Your task to perform on an android device: set an alarm Image 0: 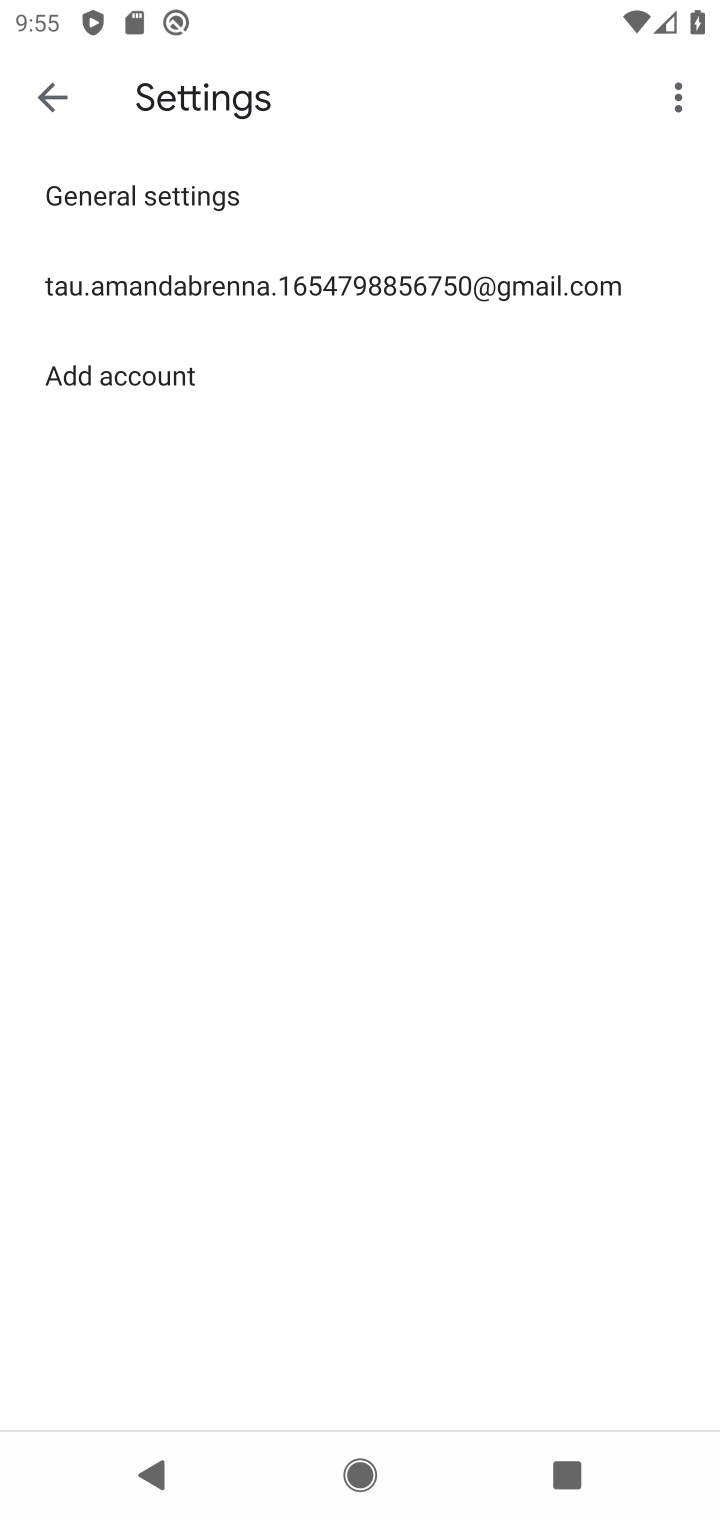
Step 0: press home button
Your task to perform on an android device: set an alarm Image 1: 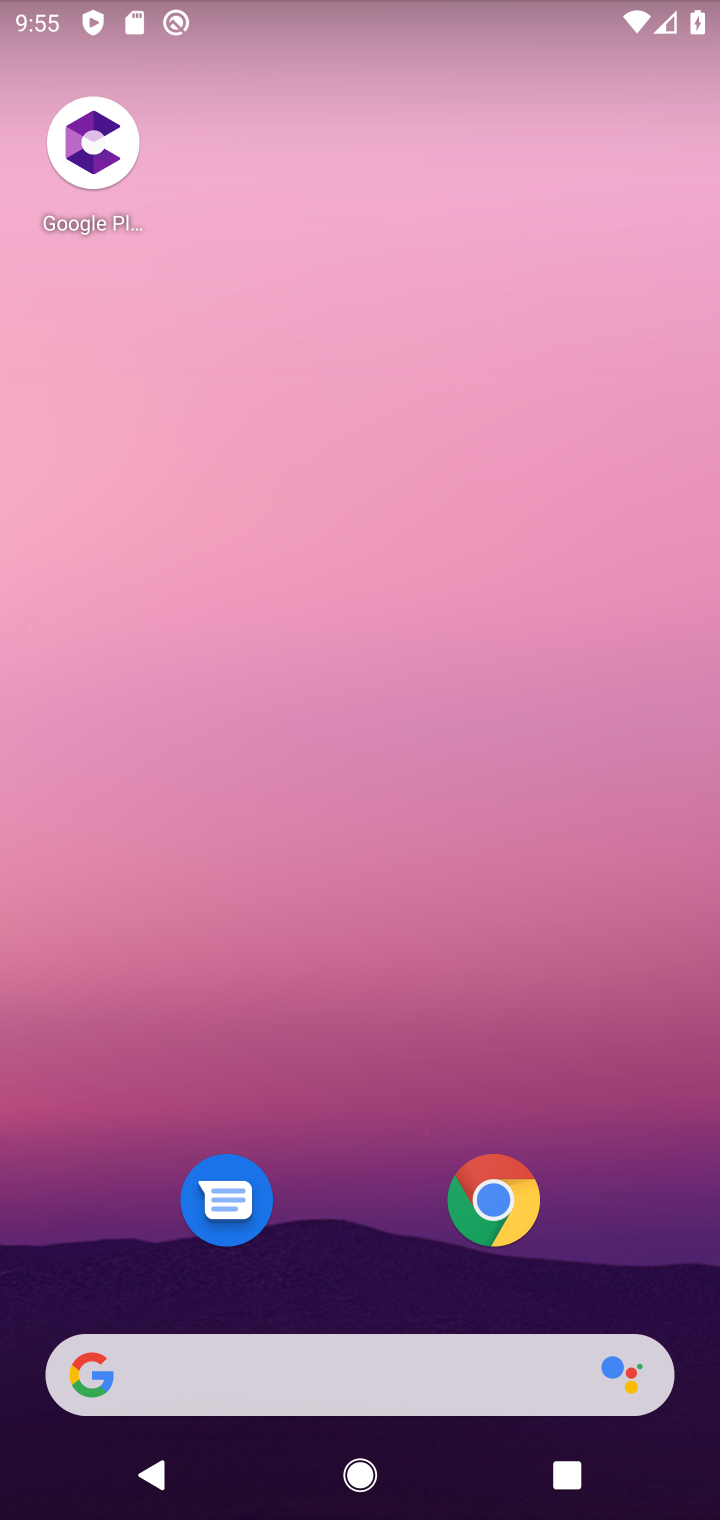
Step 1: drag from (186, 1321) to (495, 341)
Your task to perform on an android device: set an alarm Image 2: 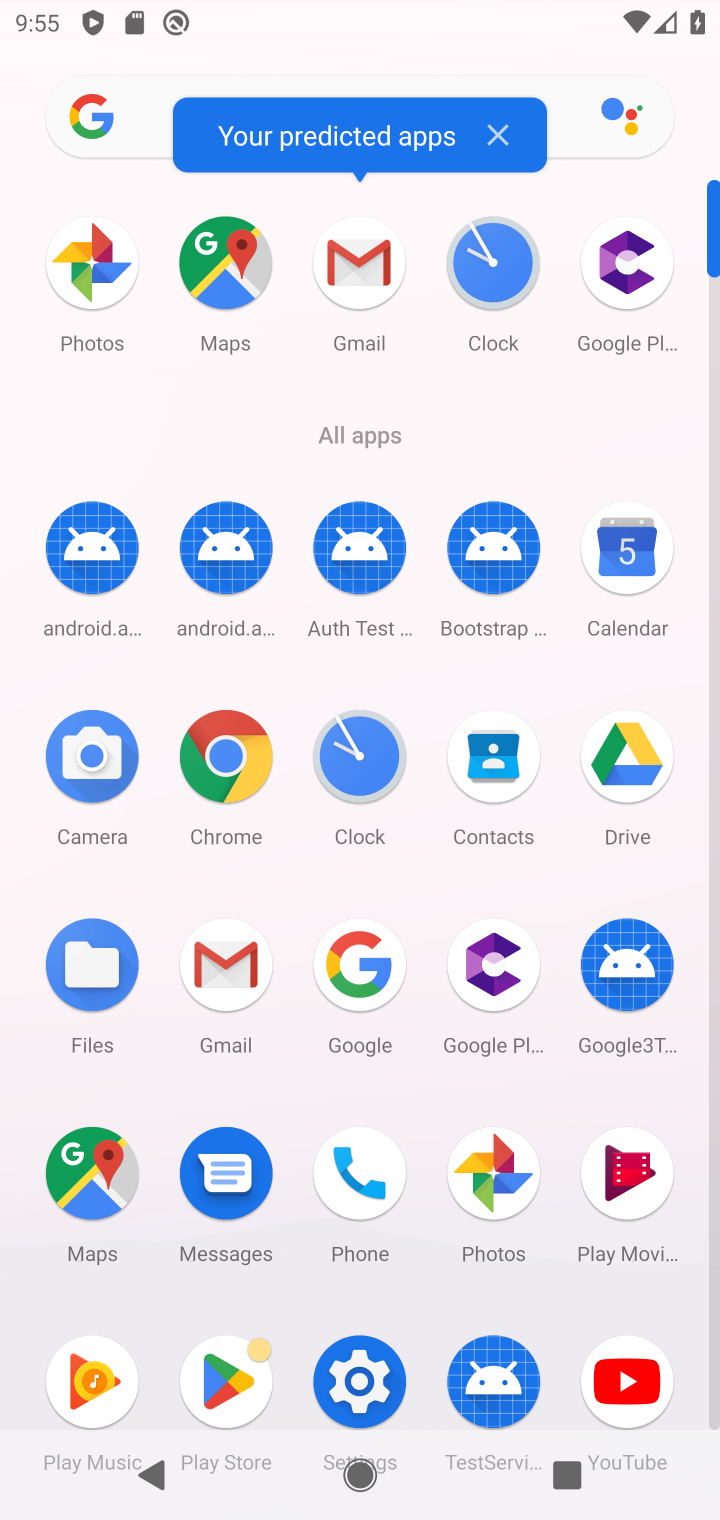
Step 2: click (309, 726)
Your task to perform on an android device: set an alarm Image 3: 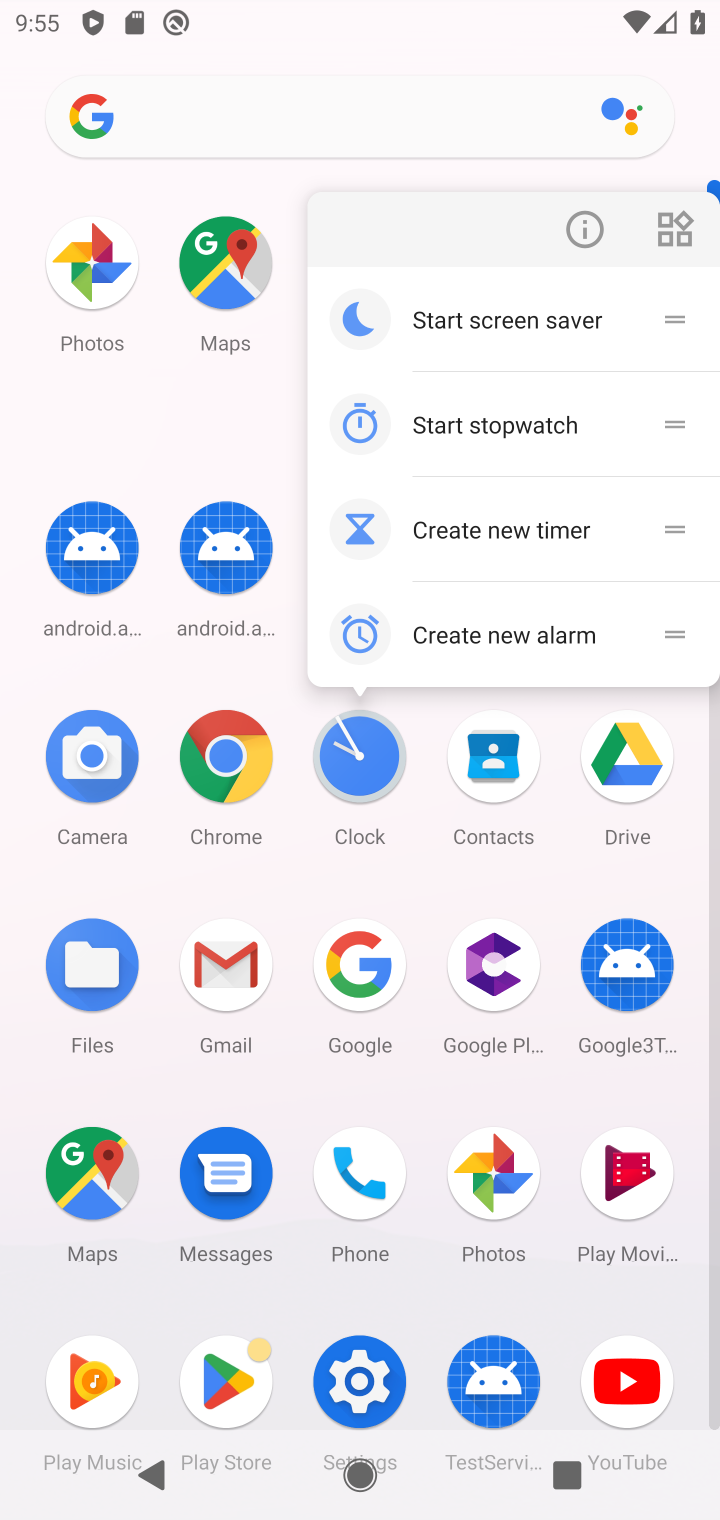
Step 3: click (352, 747)
Your task to perform on an android device: set an alarm Image 4: 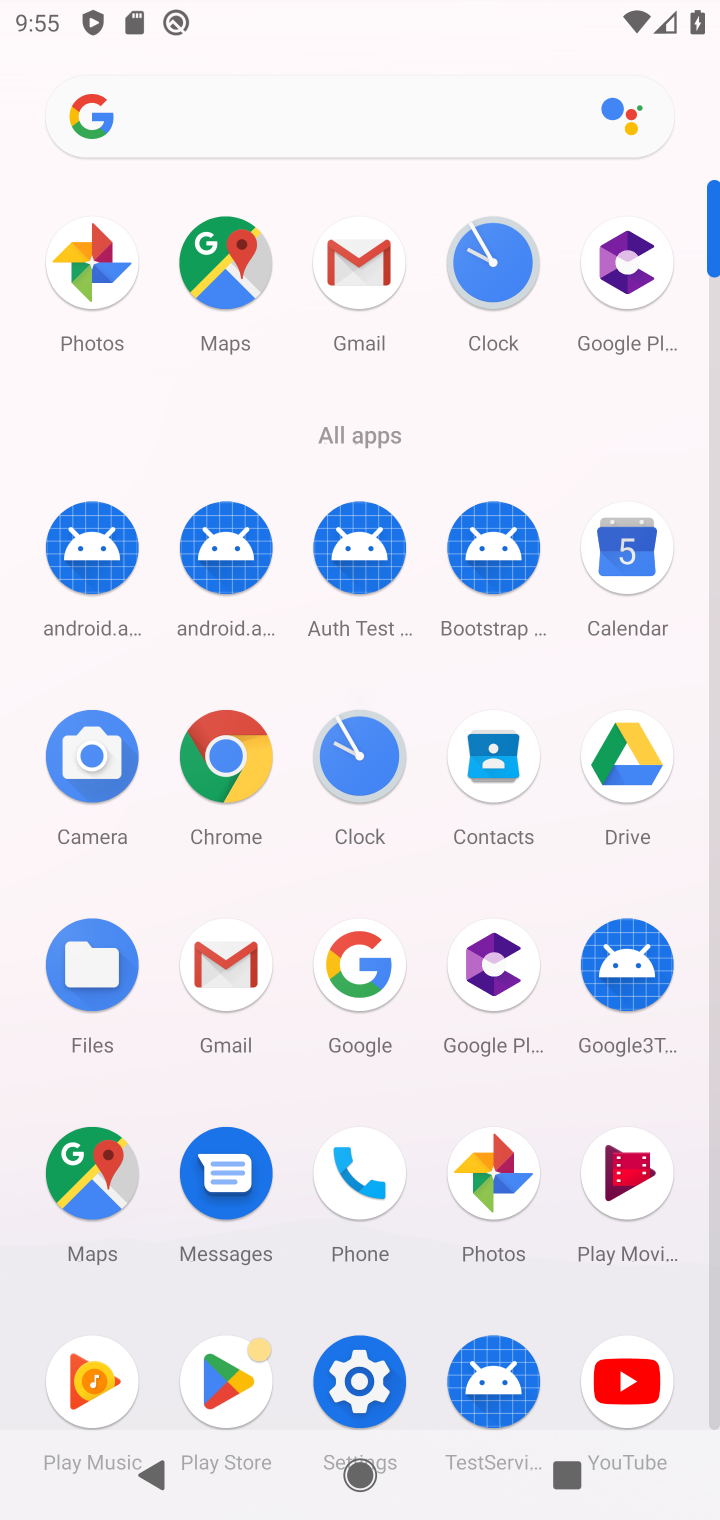
Step 4: click (352, 761)
Your task to perform on an android device: set an alarm Image 5: 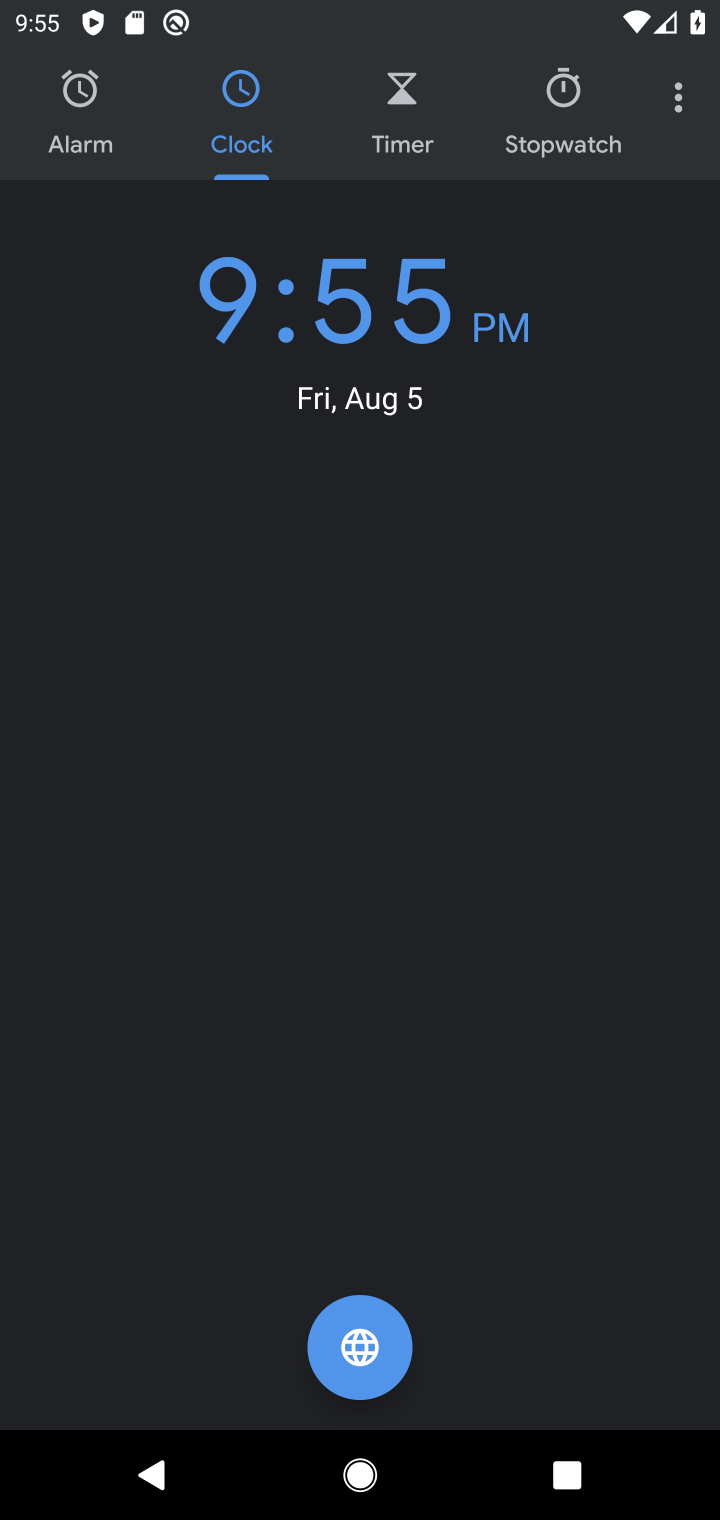
Step 5: click (64, 115)
Your task to perform on an android device: set an alarm Image 6: 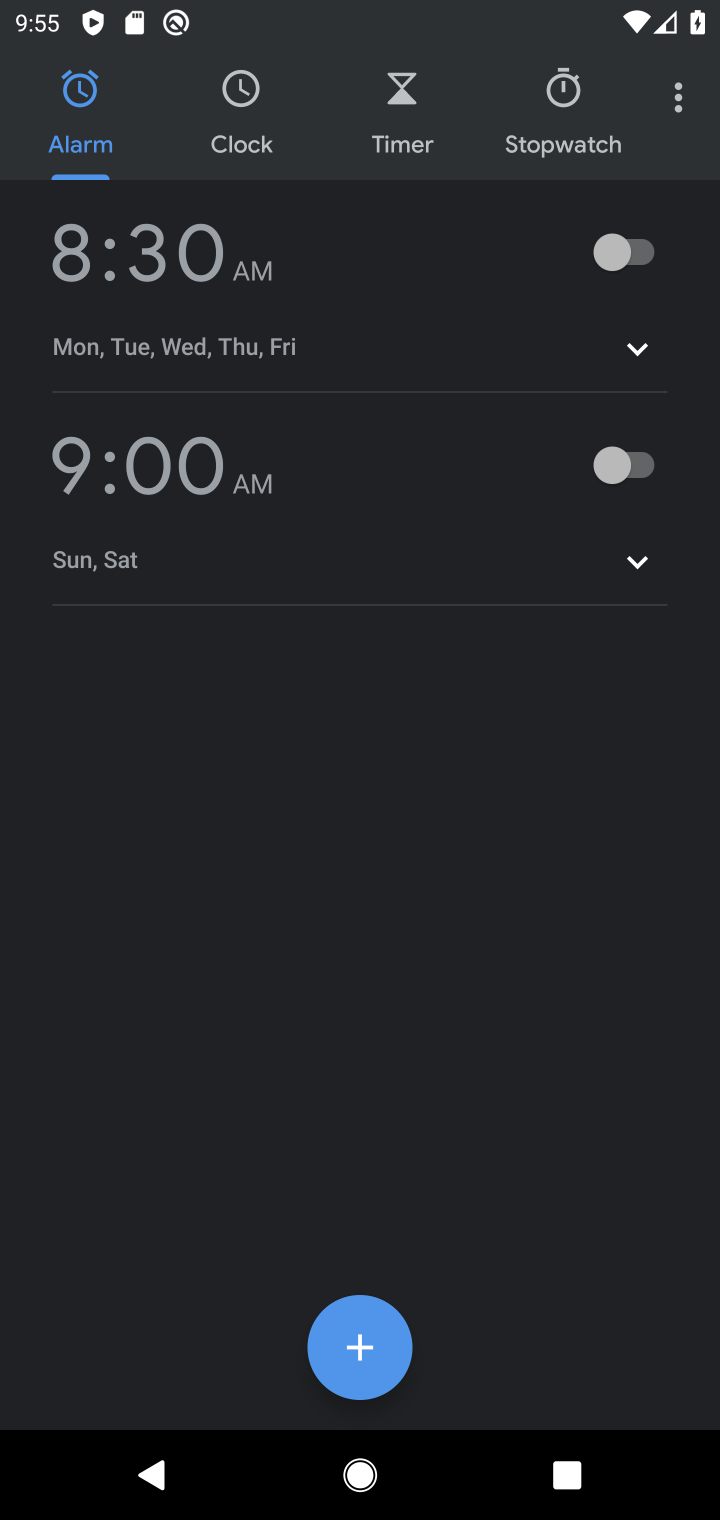
Step 6: click (381, 1352)
Your task to perform on an android device: set an alarm Image 7: 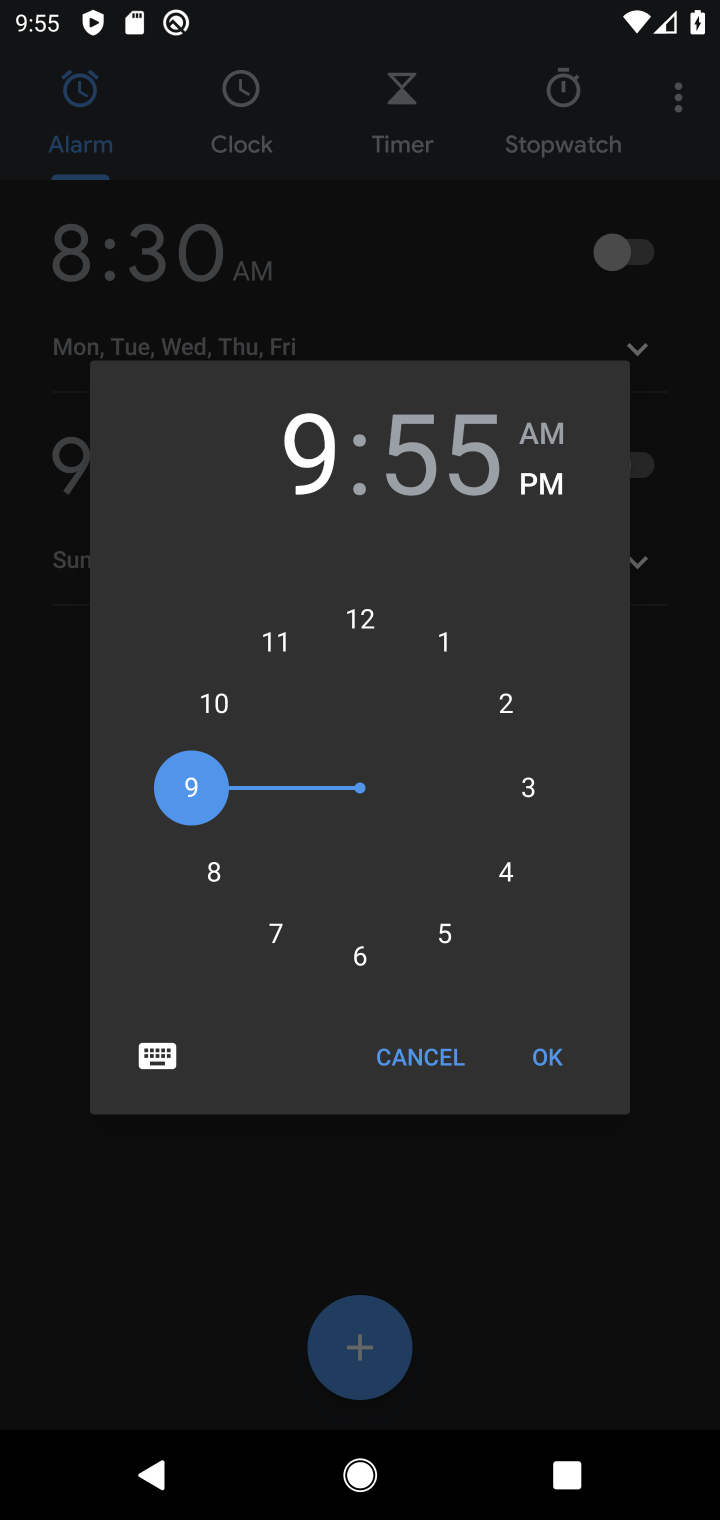
Step 7: click (544, 1074)
Your task to perform on an android device: set an alarm Image 8: 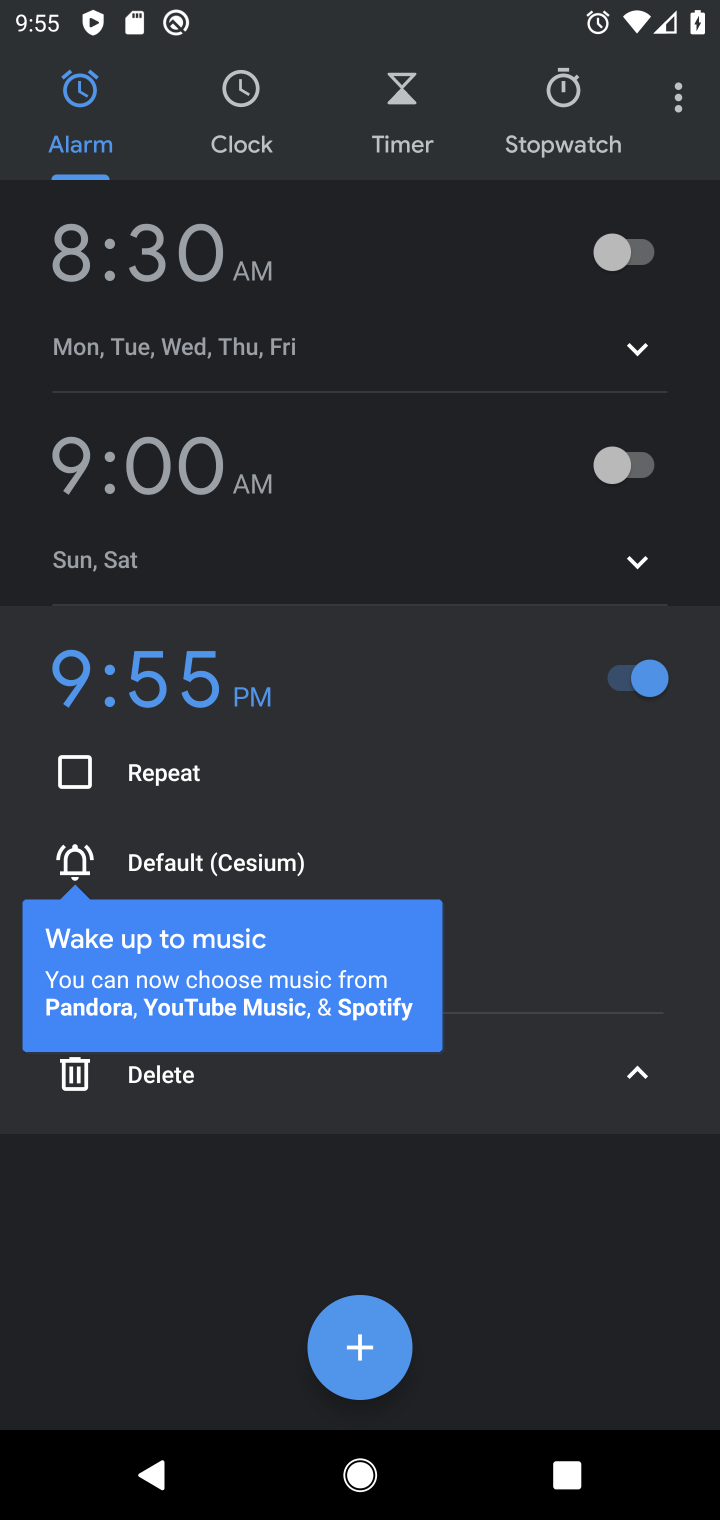
Step 8: task complete